Your task to perform on an android device: turn on improve location accuracy Image 0: 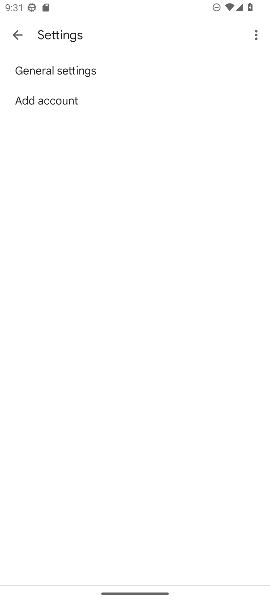
Step 0: press home button
Your task to perform on an android device: turn on improve location accuracy Image 1: 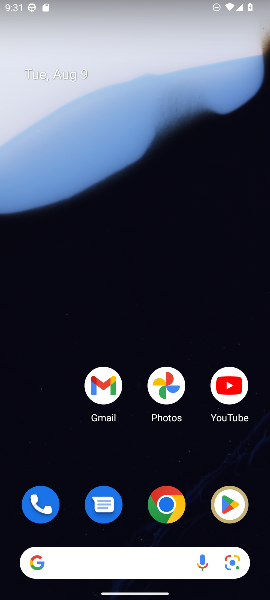
Step 1: drag from (144, 476) to (129, 133)
Your task to perform on an android device: turn on improve location accuracy Image 2: 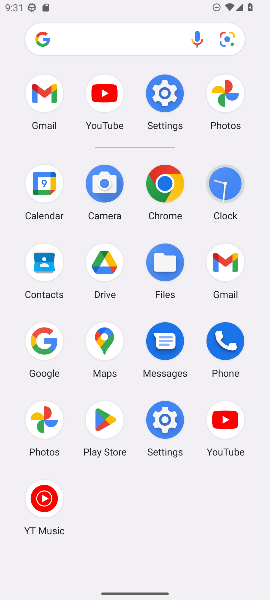
Step 2: click (163, 98)
Your task to perform on an android device: turn on improve location accuracy Image 3: 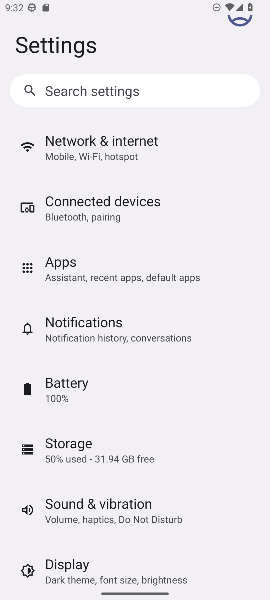
Step 3: drag from (188, 539) to (191, 264)
Your task to perform on an android device: turn on improve location accuracy Image 4: 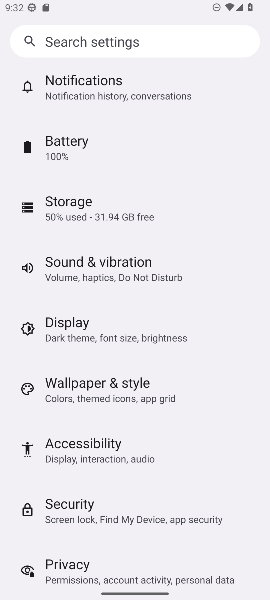
Step 4: drag from (183, 452) to (183, 251)
Your task to perform on an android device: turn on improve location accuracy Image 5: 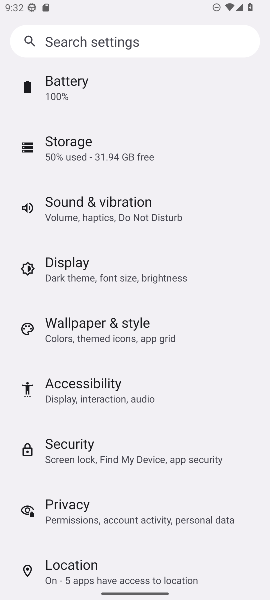
Step 5: click (74, 562)
Your task to perform on an android device: turn on improve location accuracy Image 6: 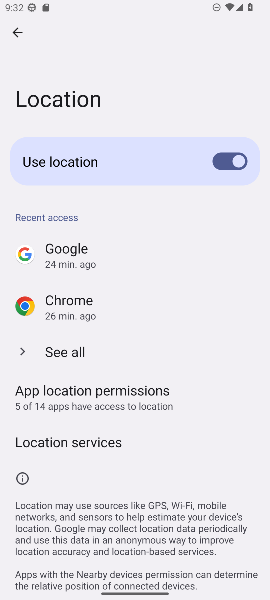
Step 6: click (73, 445)
Your task to perform on an android device: turn on improve location accuracy Image 7: 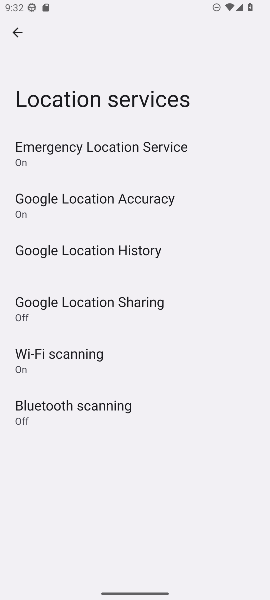
Step 7: click (93, 192)
Your task to perform on an android device: turn on improve location accuracy Image 8: 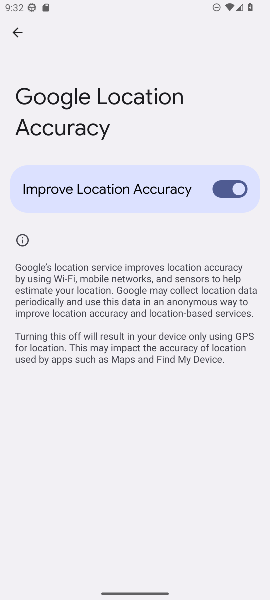
Step 8: task complete